Your task to perform on an android device: change text size in settings app Image 0: 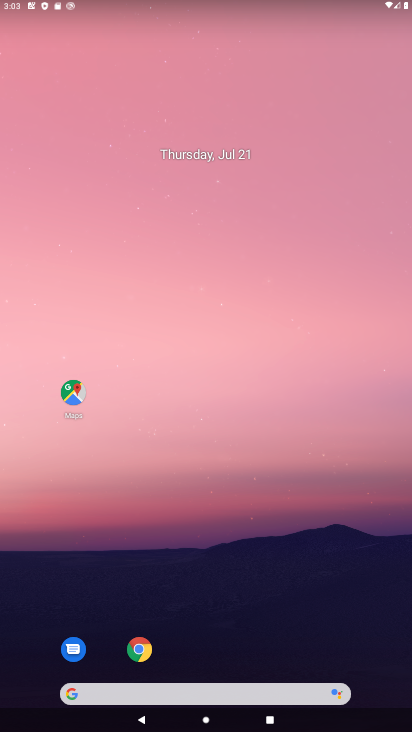
Step 0: drag from (276, 649) to (241, 309)
Your task to perform on an android device: change text size in settings app Image 1: 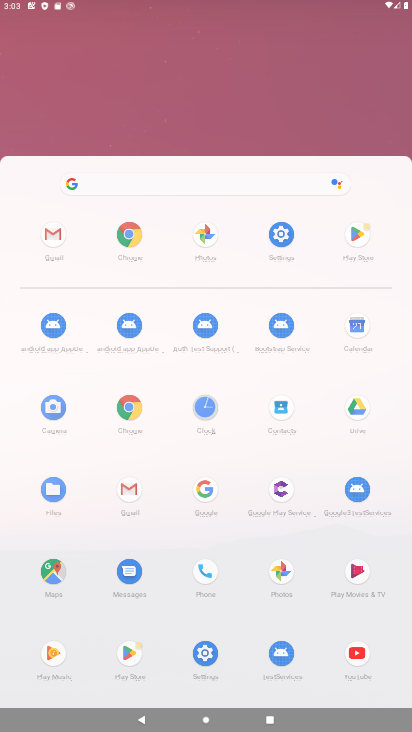
Step 1: click (241, 309)
Your task to perform on an android device: change text size in settings app Image 2: 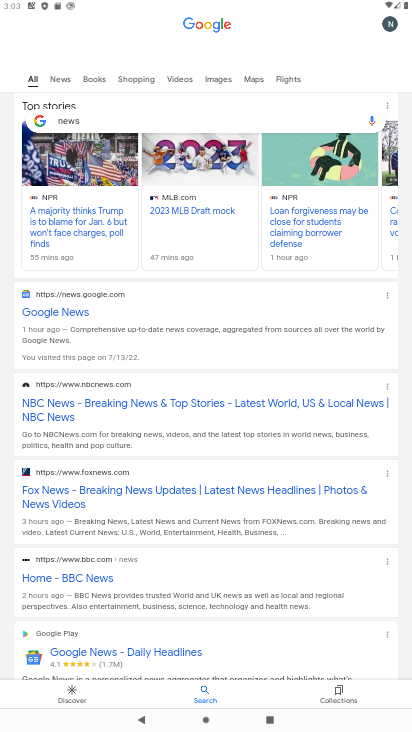
Step 2: press home button
Your task to perform on an android device: change text size in settings app Image 3: 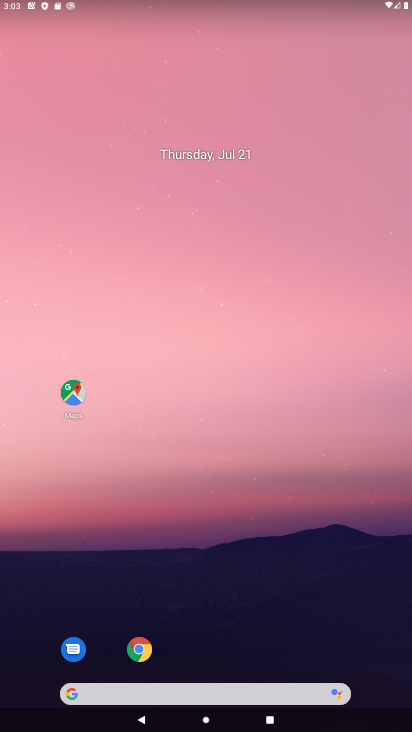
Step 3: drag from (203, 655) to (206, 169)
Your task to perform on an android device: change text size in settings app Image 4: 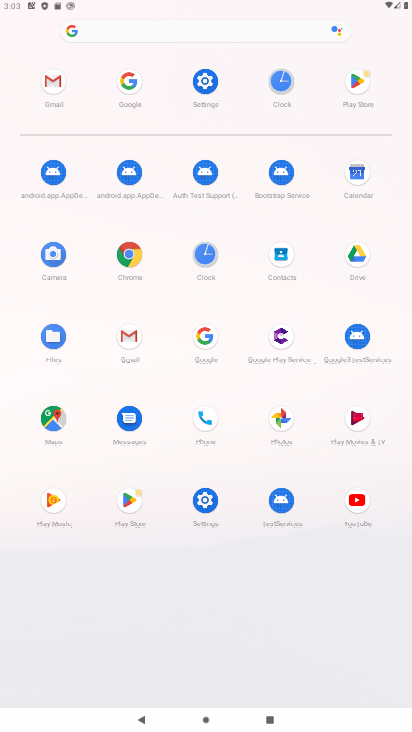
Step 4: click (213, 77)
Your task to perform on an android device: change text size in settings app Image 5: 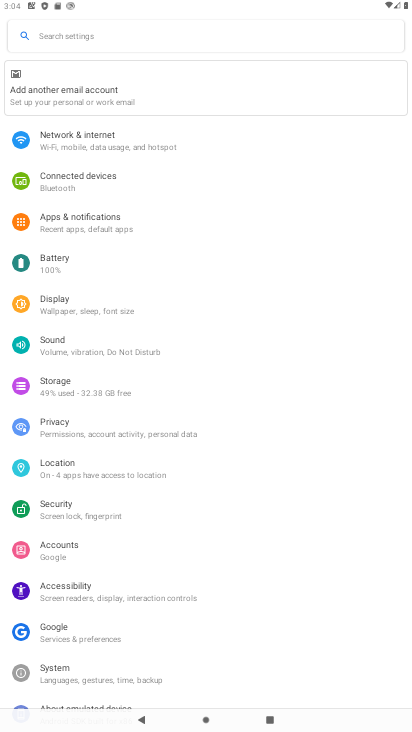
Step 5: click (103, 311)
Your task to perform on an android device: change text size in settings app Image 6: 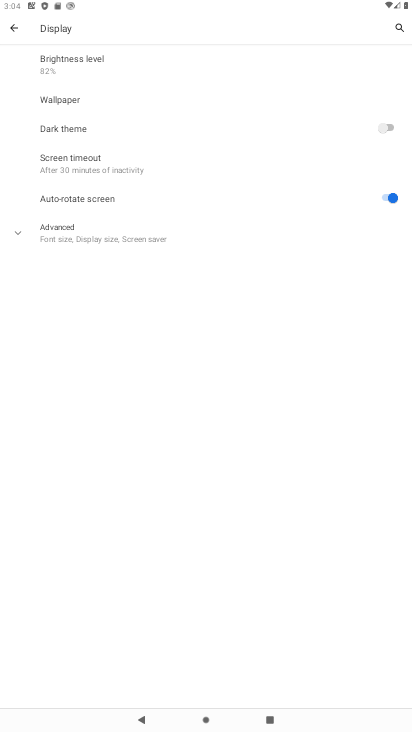
Step 6: click (180, 230)
Your task to perform on an android device: change text size in settings app Image 7: 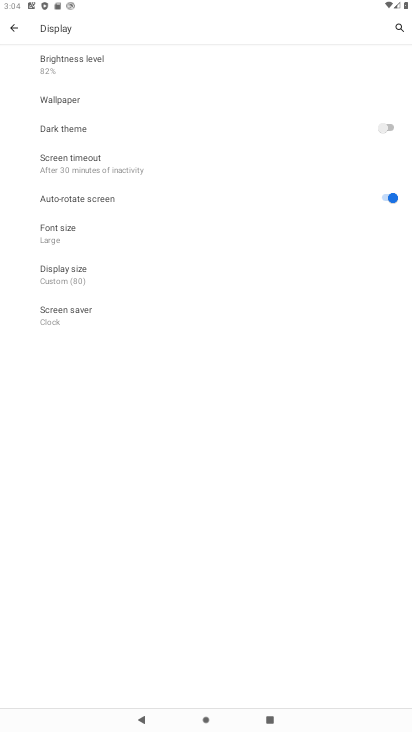
Step 7: click (157, 233)
Your task to perform on an android device: change text size in settings app Image 8: 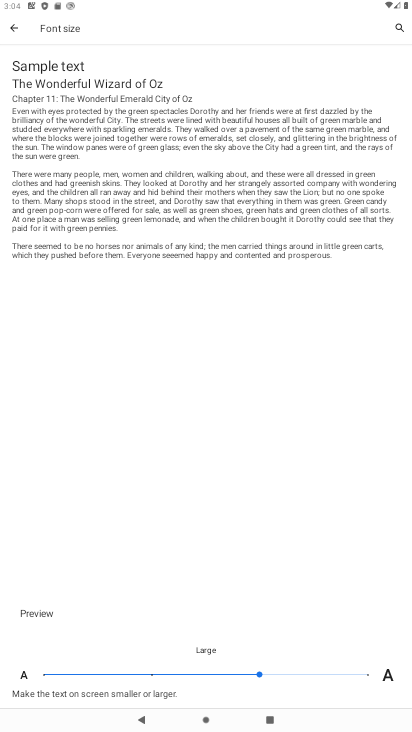
Step 8: click (360, 670)
Your task to perform on an android device: change text size in settings app Image 9: 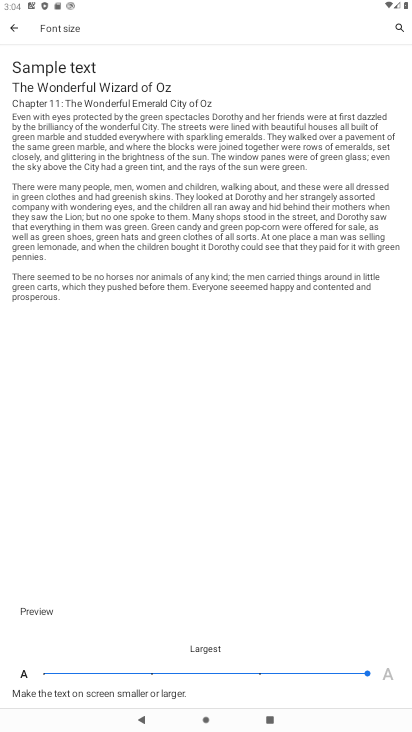
Step 9: task complete